Your task to perform on an android device: open chrome privacy settings Image 0: 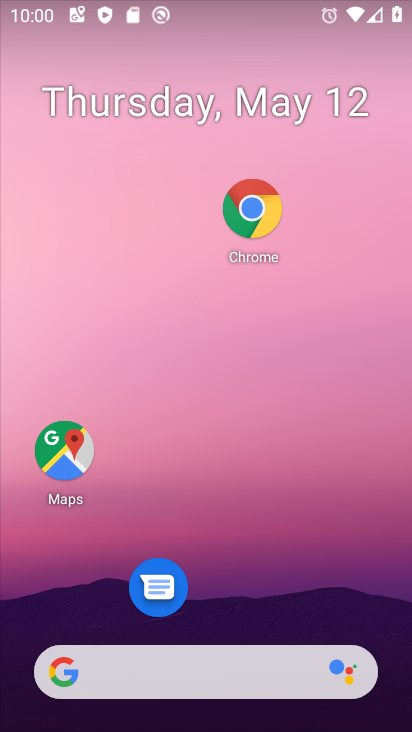
Step 0: drag from (297, 596) to (323, 212)
Your task to perform on an android device: open chrome privacy settings Image 1: 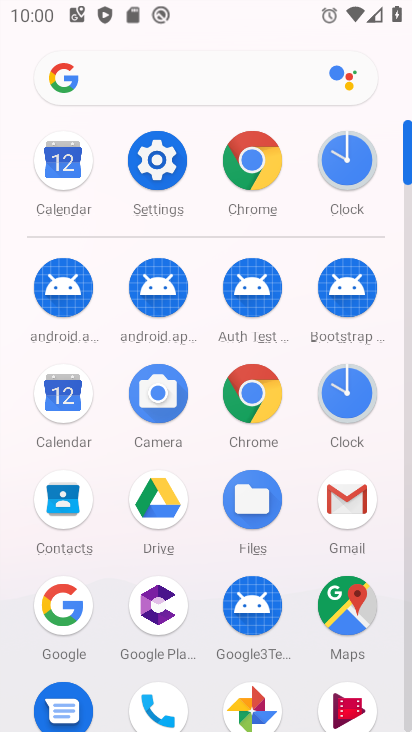
Step 1: click (147, 158)
Your task to perform on an android device: open chrome privacy settings Image 2: 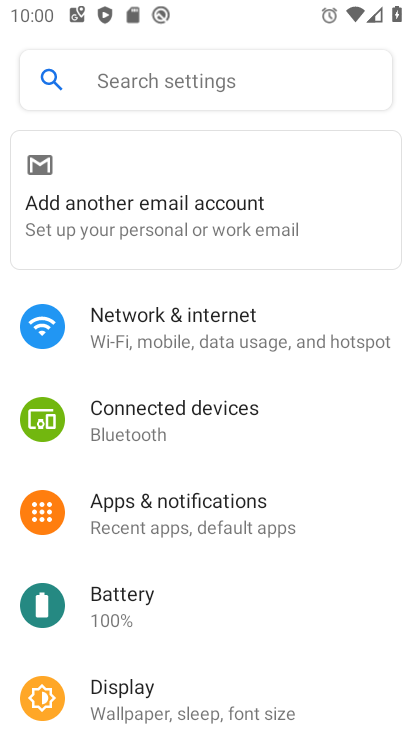
Step 2: drag from (222, 591) to (265, 240)
Your task to perform on an android device: open chrome privacy settings Image 3: 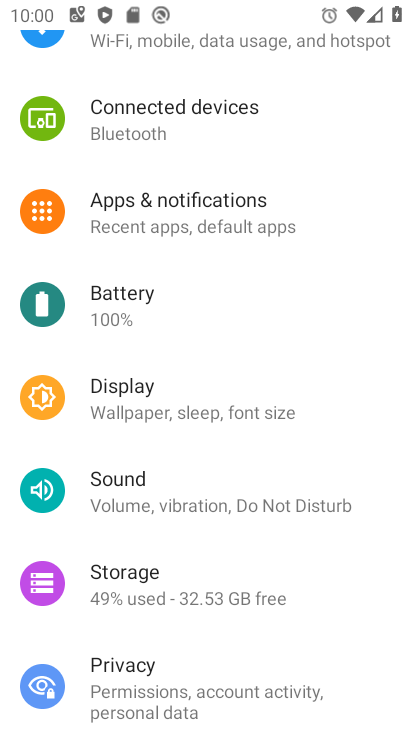
Step 3: press home button
Your task to perform on an android device: open chrome privacy settings Image 4: 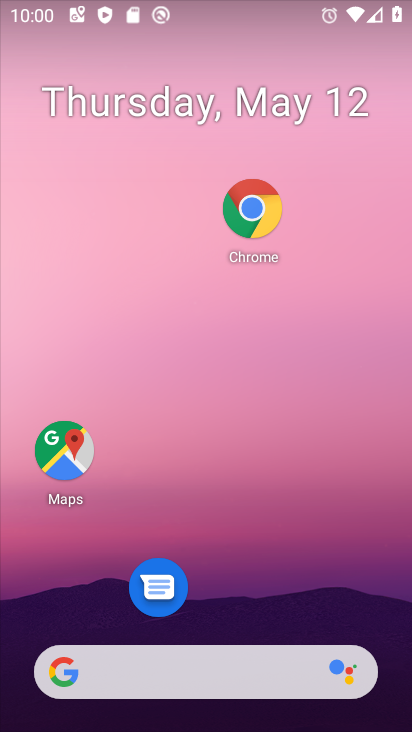
Step 4: click (251, 216)
Your task to perform on an android device: open chrome privacy settings Image 5: 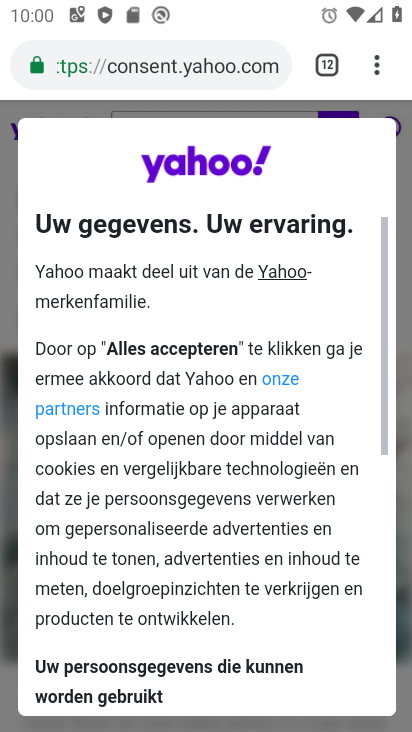
Step 5: click (356, 55)
Your task to perform on an android device: open chrome privacy settings Image 6: 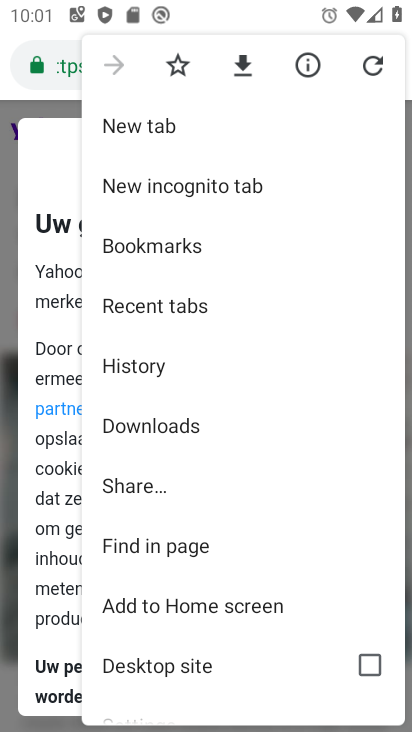
Step 6: drag from (214, 557) to (255, 181)
Your task to perform on an android device: open chrome privacy settings Image 7: 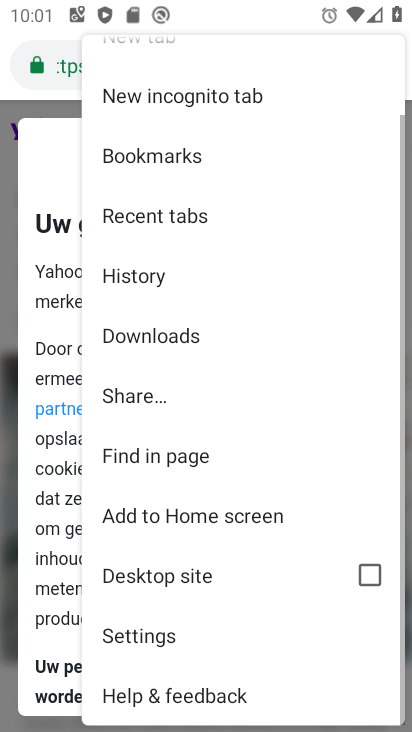
Step 7: click (153, 635)
Your task to perform on an android device: open chrome privacy settings Image 8: 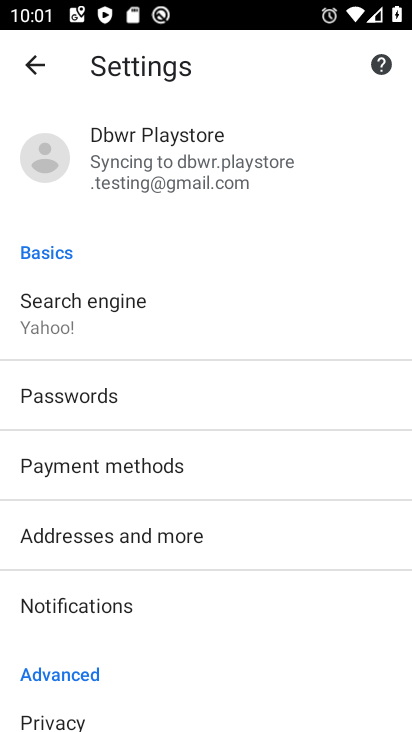
Step 8: drag from (234, 600) to (252, 448)
Your task to perform on an android device: open chrome privacy settings Image 9: 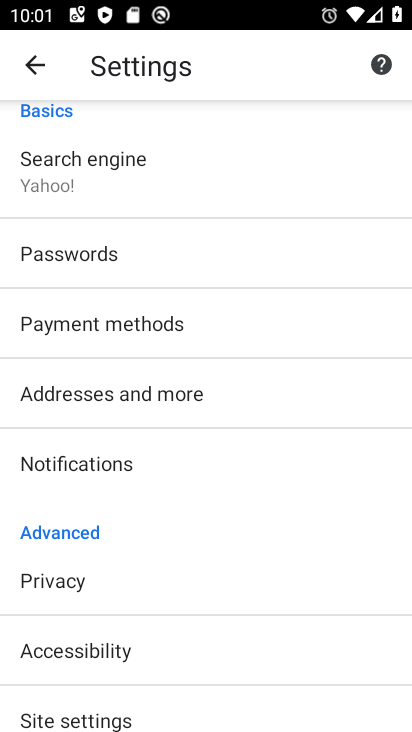
Step 9: click (47, 587)
Your task to perform on an android device: open chrome privacy settings Image 10: 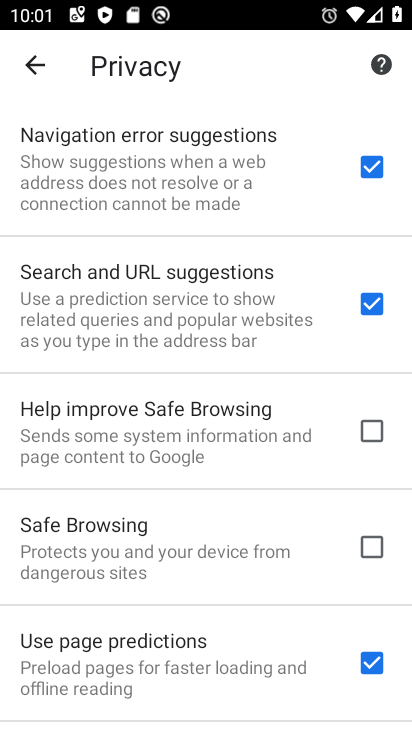
Step 10: task complete